Your task to perform on an android device: stop showing notifications on the lock screen Image 0: 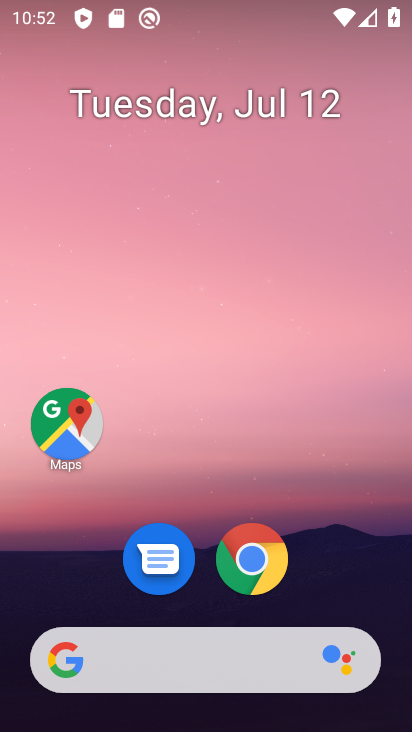
Step 0: press home button
Your task to perform on an android device: stop showing notifications on the lock screen Image 1: 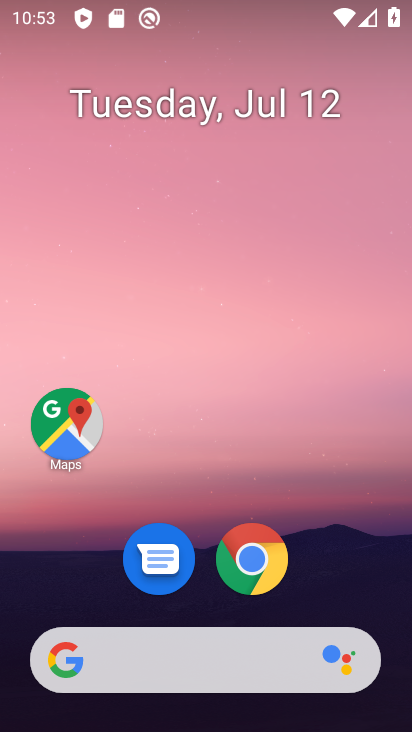
Step 1: drag from (183, 687) to (187, 243)
Your task to perform on an android device: stop showing notifications on the lock screen Image 2: 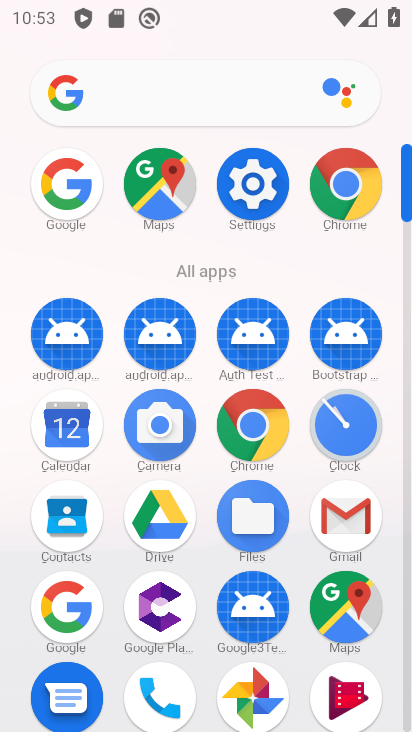
Step 2: click (245, 174)
Your task to perform on an android device: stop showing notifications on the lock screen Image 3: 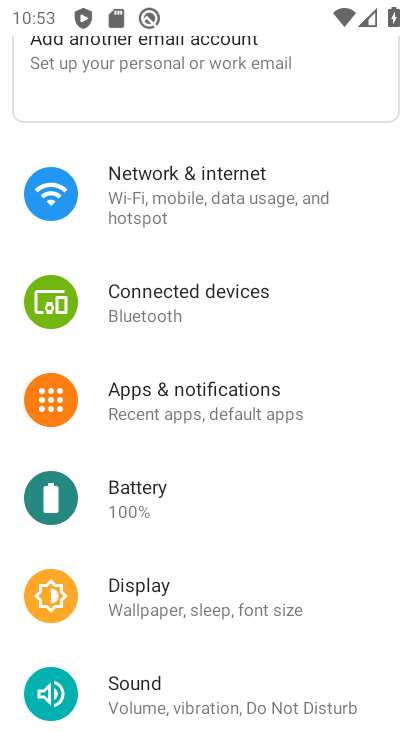
Step 3: click (193, 405)
Your task to perform on an android device: stop showing notifications on the lock screen Image 4: 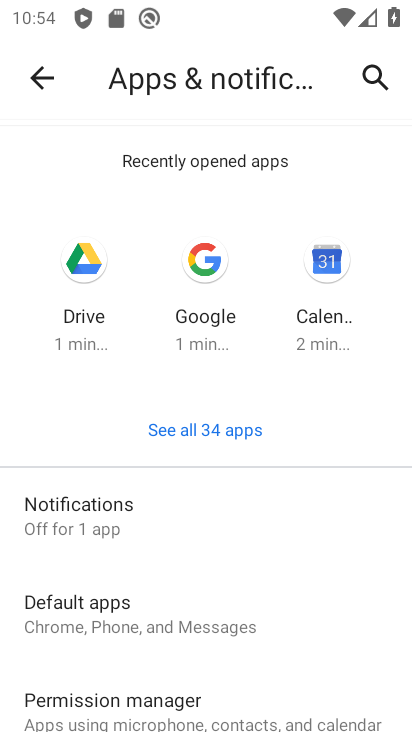
Step 4: drag from (140, 578) to (164, 344)
Your task to perform on an android device: stop showing notifications on the lock screen Image 5: 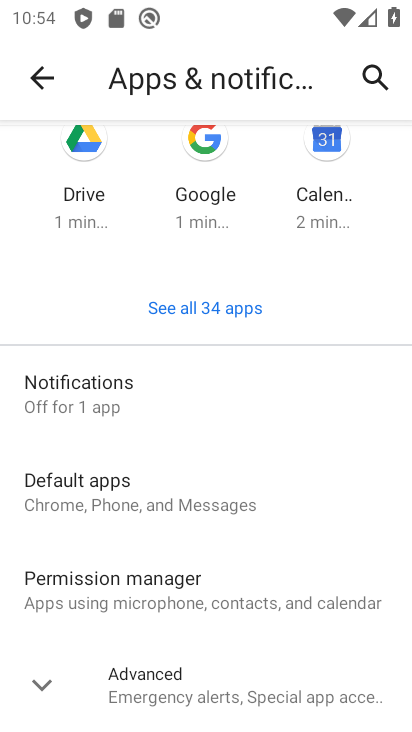
Step 5: click (104, 409)
Your task to perform on an android device: stop showing notifications on the lock screen Image 6: 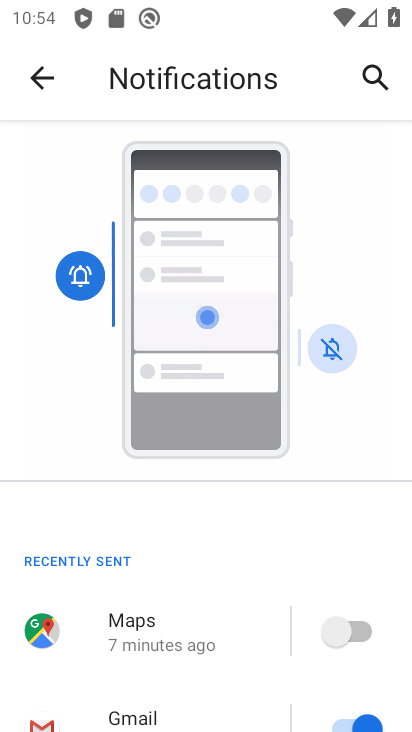
Step 6: click (298, 277)
Your task to perform on an android device: stop showing notifications on the lock screen Image 7: 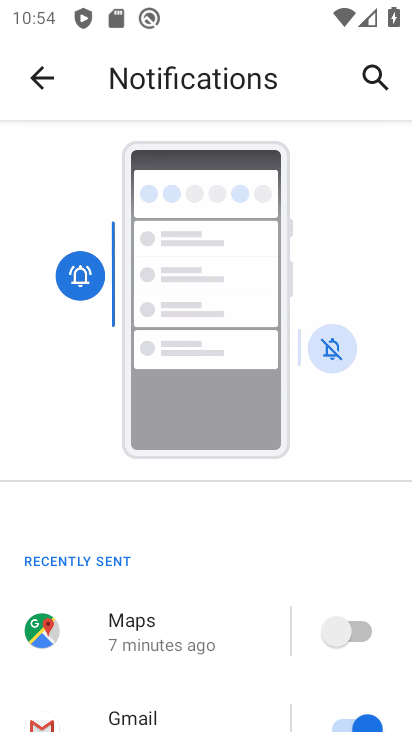
Step 7: drag from (143, 579) to (214, 235)
Your task to perform on an android device: stop showing notifications on the lock screen Image 8: 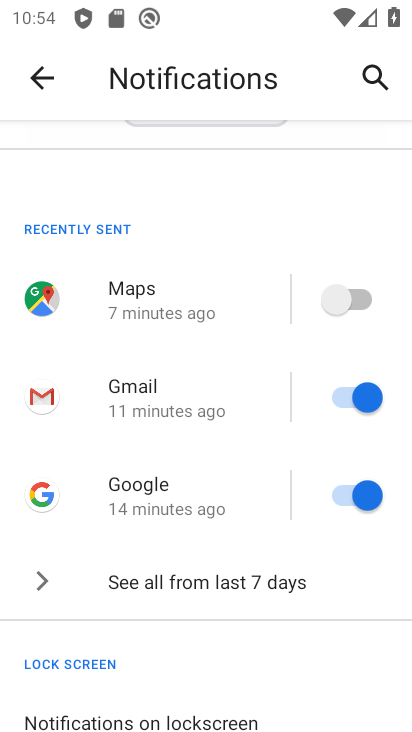
Step 8: drag from (146, 609) to (222, 192)
Your task to perform on an android device: stop showing notifications on the lock screen Image 9: 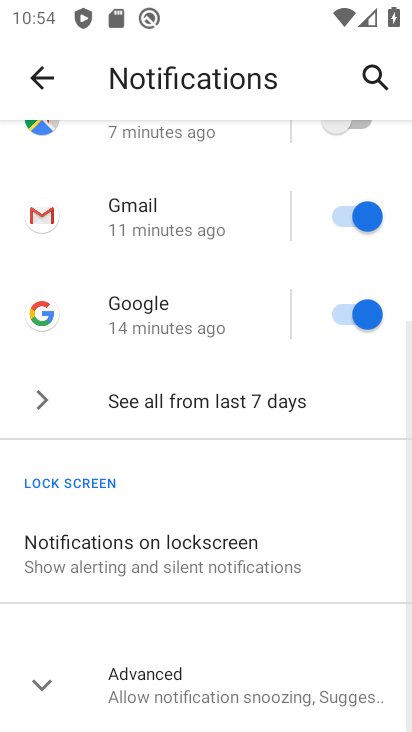
Step 9: drag from (139, 646) to (174, 415)
Your task to perform on an android device: stop showing notifications on the lock screen Image 10: 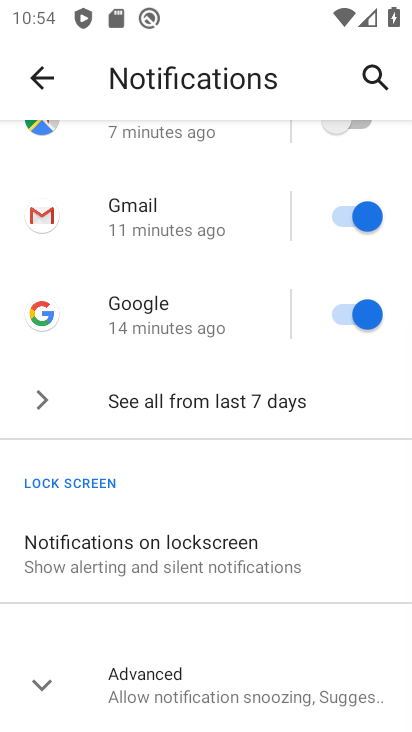
Step 10: click (189, 547)
Your task to perform on an android device: stop showing notifications on the lock screen Image 11: 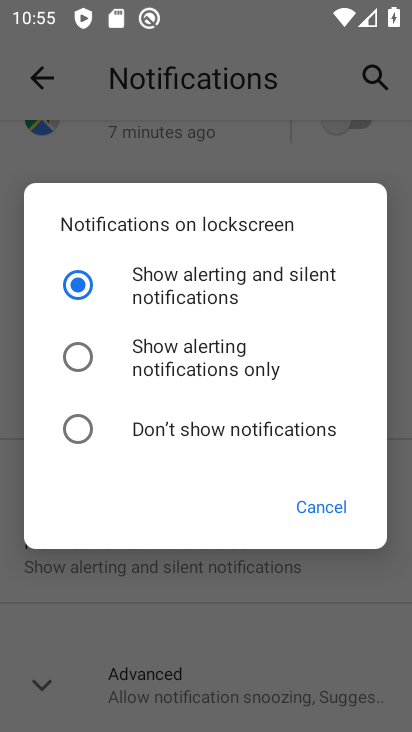
Step 11: click (153, 446)
Your task to perform on an android device: stop showing notifications on the lock screen Image 12: 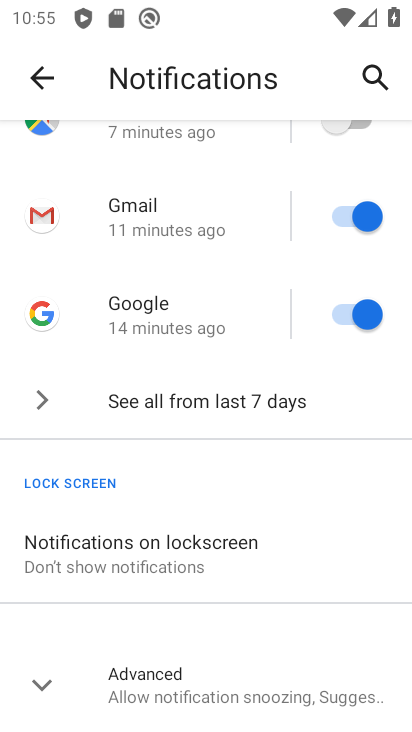
Step 12: task complete